Your task to perform on an android device: turn off data saver in the chrome app Image 0: 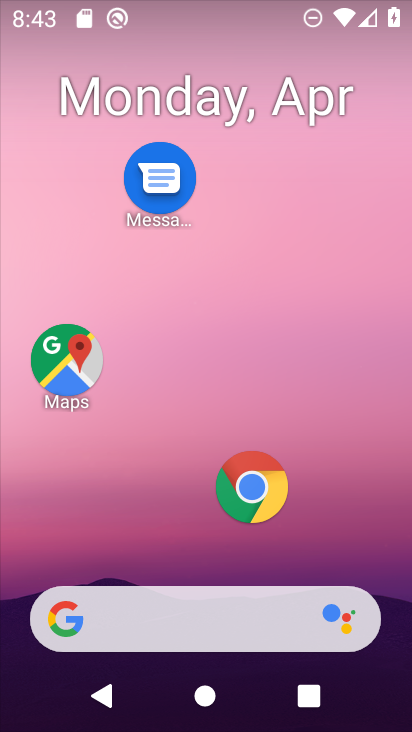
Step 0: click (254, 489)
Your task to perform on an android device: turn off data saver in the chrome app Image 1: 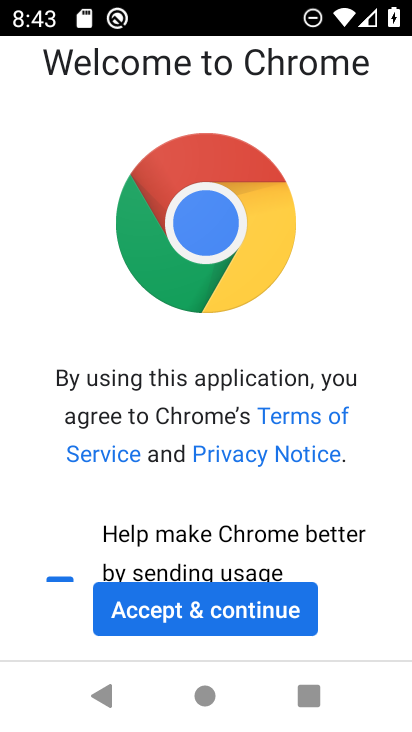
Step 1: click (219, 610)
Your task to perform on an android device: turn off data saver in the chrome app Image 2: 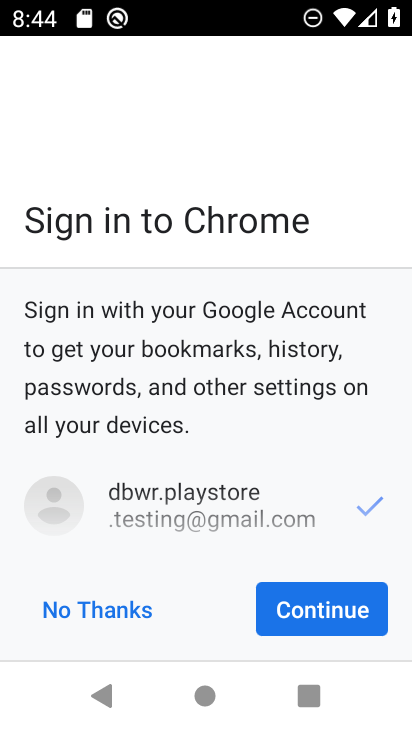
Step 2: click (309, 606)
Your task to perform on an android device: turn off data saver in the chrome app Image 3: 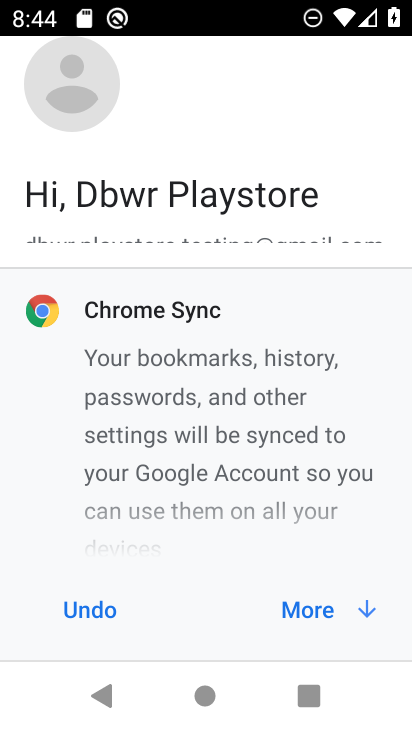
Step 3: click (304, 609)
Your task to perform on an android device: turn off data saver in the chrome app Image 4: 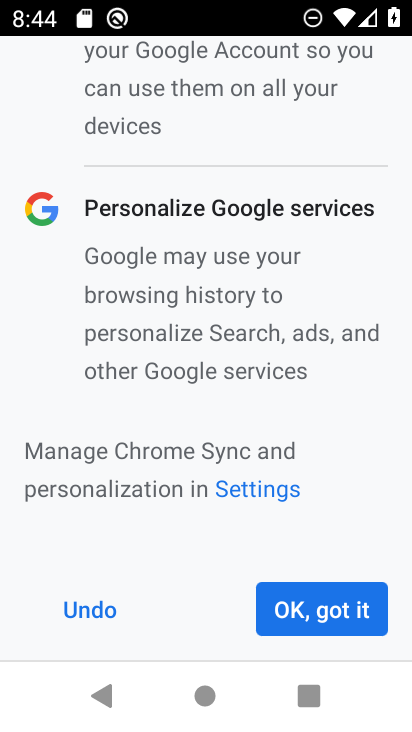
Step 4: click (304, 609)
Your task to perform on an android device: turn off data saver in the chrome app Image 5: 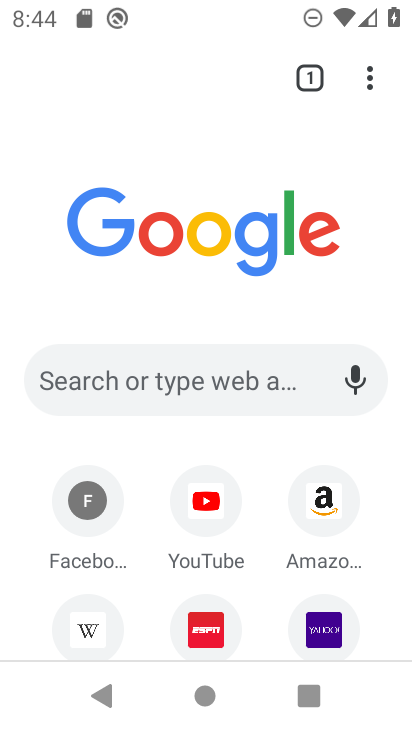
Step 5: click (369, 76)
Your task to perform on an android device: turn off data saver in the chrome app Image 6: 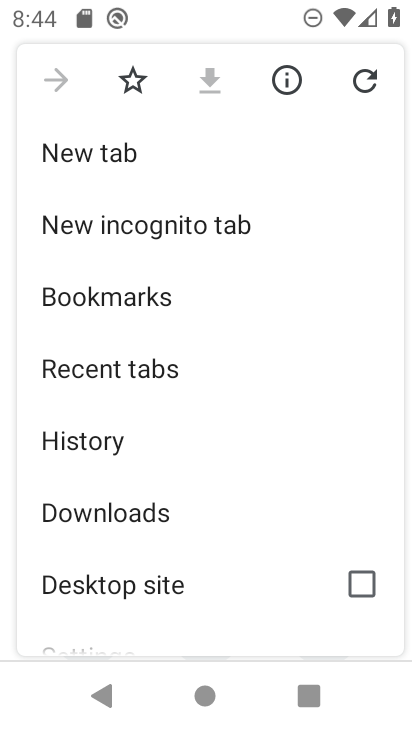
Step 6: drag from (120, 610) to (129, 244)
Your task to perform on an android device: turn off data saver in the chrome app Image 7: 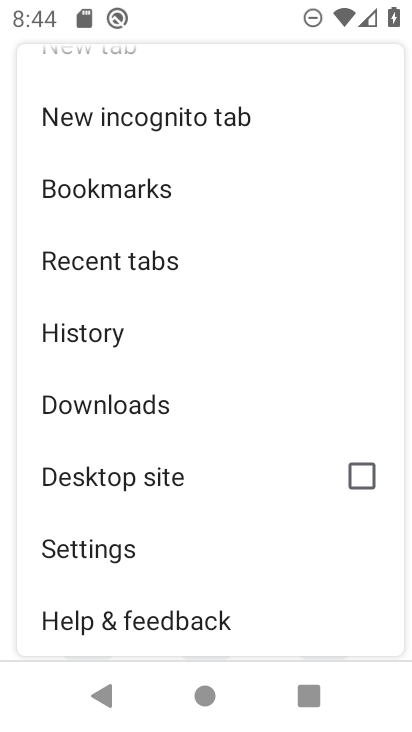
Step 7: click (96, 547)
Your task to perform on an android device: turn off data saver in the chrome app Image 8: 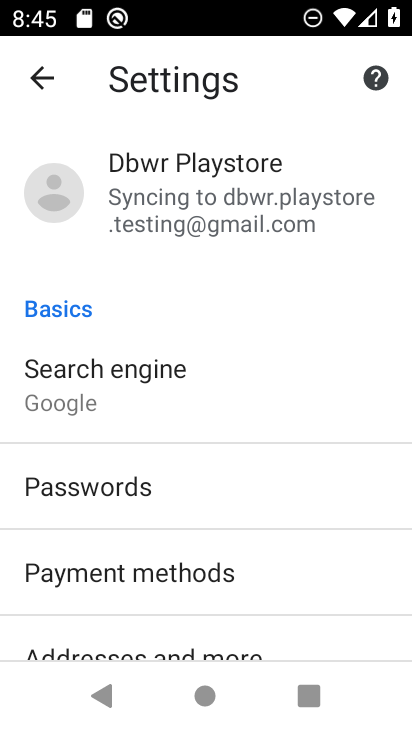
Step 8: drag from (167, 631) to (191, 211)
Your task to perform on an android device: turn off data saver in the chrome app Image 9: 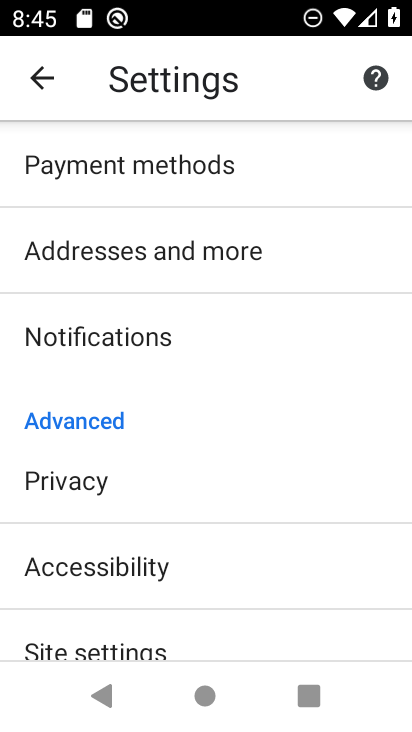
Step 9: drag from (193, 638) to (201, 228)
Your task to perform on an android device: turn off data saver in the chrome app Image 10: 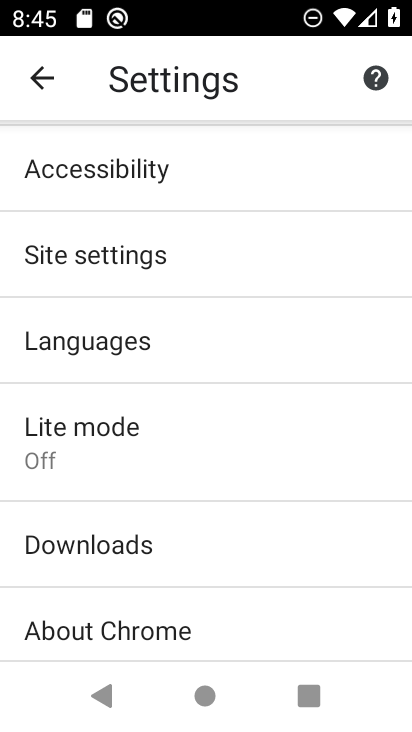
Step 10: click (103, 424)
Your task to perform on an android device: turn off data saver in the chrome app Image 11: 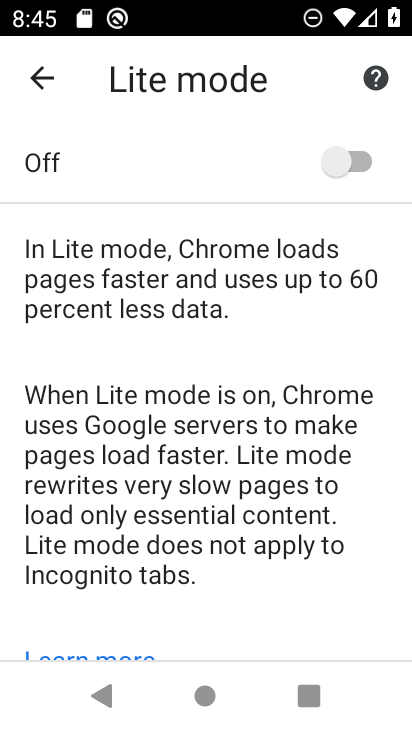
Step 11: task complete